Your task to perform on an android device: Go to network settings Image 0: 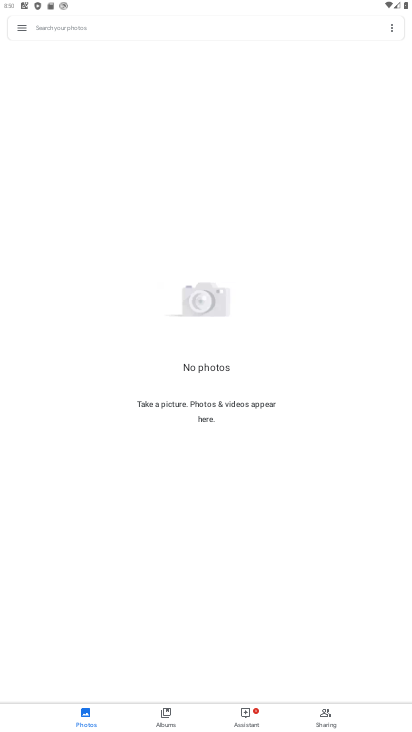
Step 0: press home button
Your task to perform on an android device: Go to network settings Image 1: 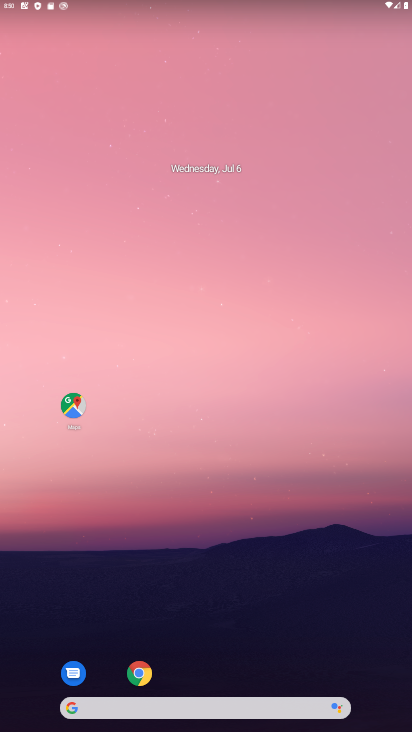
Step 1: drag from (238, 643) to (233, 257)
Your task to perform on an android device: Go to network settings Image 2: 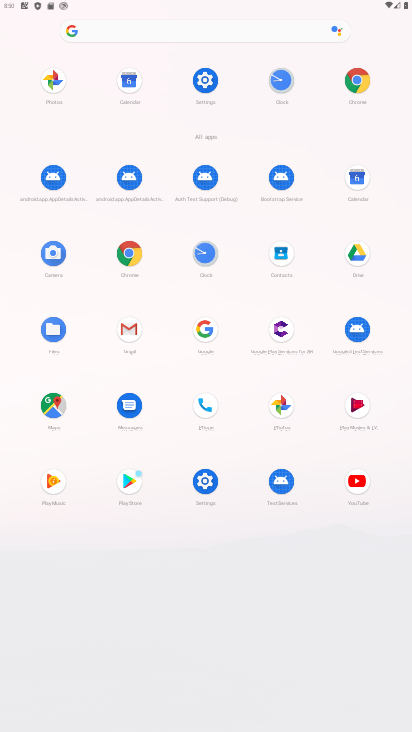
Step 2: click (200, 89)
Your task to perform on an android device: Go to network settings Image 3: 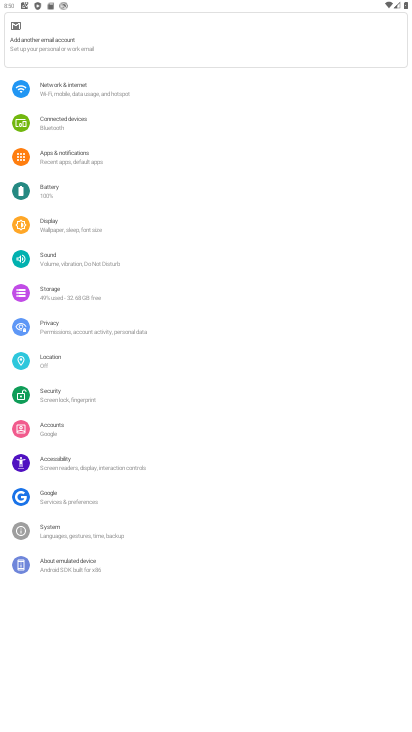
Step 3: click (104, 80)
Your task to perform on an android device: Go to network settings Image 4: 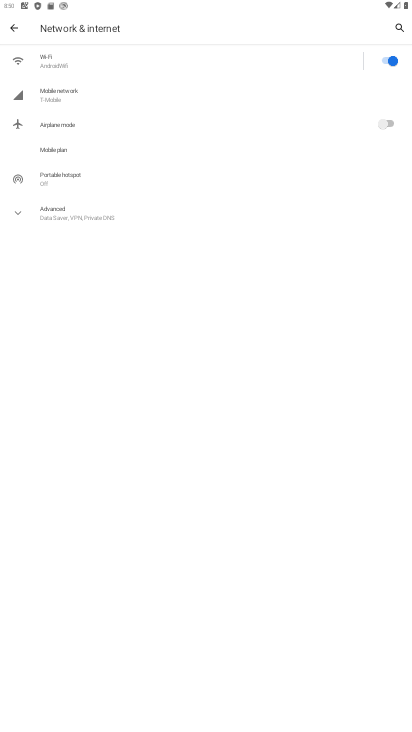
Step 4: task complete